Your task to perform on an android device: Show me the alarms in the clock app Image 0: 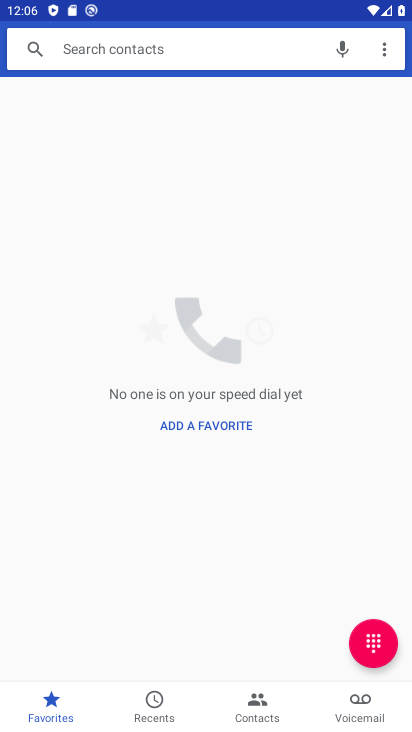
Step 0: press home button
Your task to perform on an android device: Show me the alarms in the clock app Image 1: 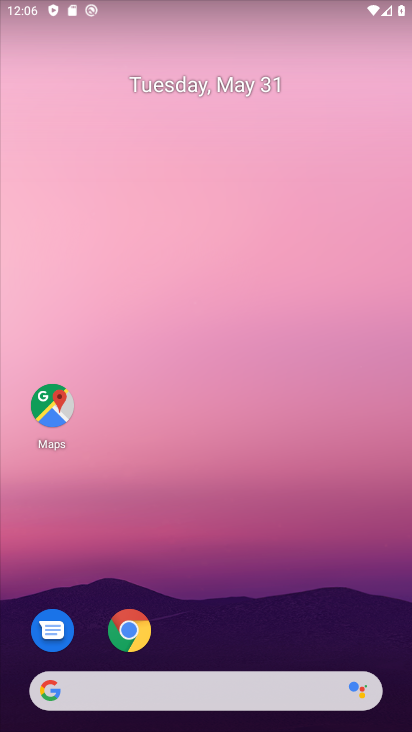
Step 1: drag from (206, 630) to (308, 206)
Your task to perform on an android device: Show me the alarms in the clock app Image 2: 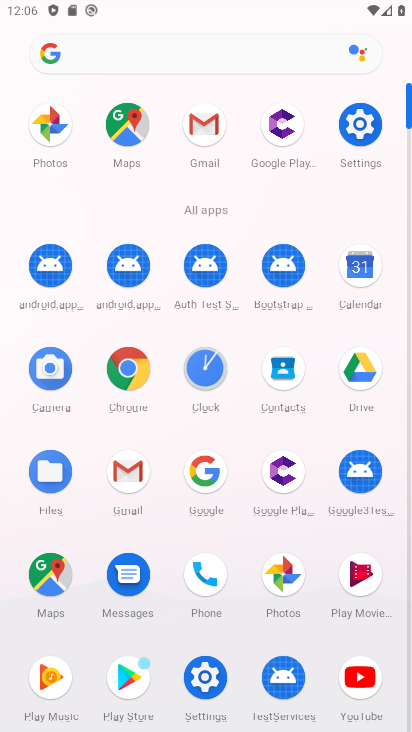
Step 2: click (207, 375)
Your task to perform on an android device: Show me the alarms in the clock app Image 3: 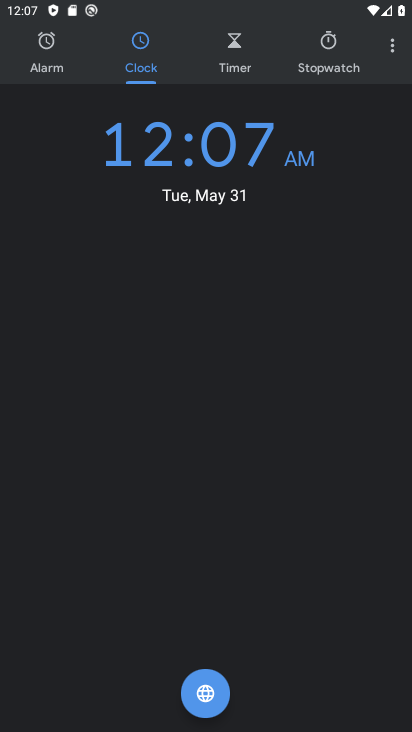
Step 3: click (48, 64)
Your task to perform on an android device: Show me the alarms in the clock app Image 4: 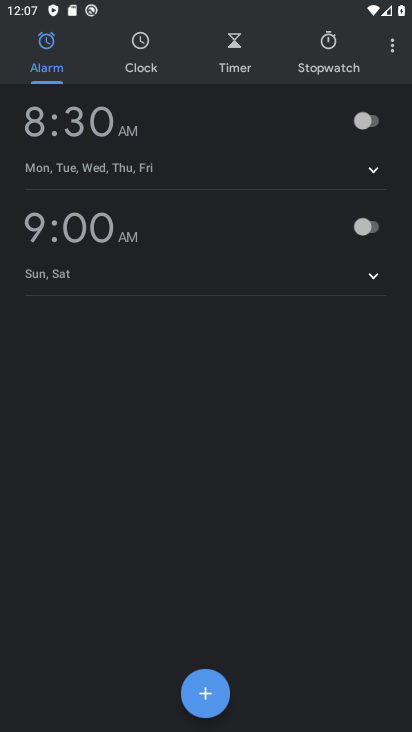
Step 4: task complete